Your task to perform on an android device: Search for flights from NYC to Buenos aires Image 0: 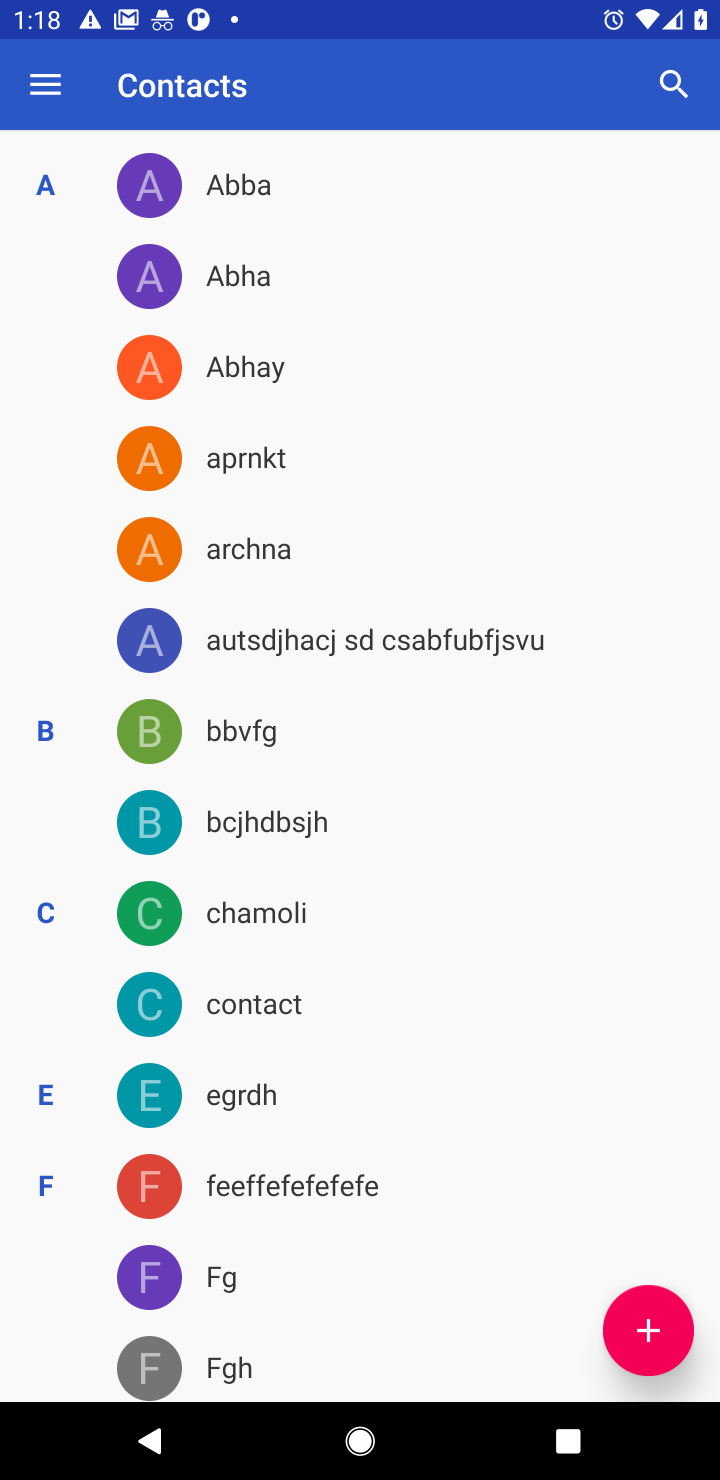
Step 0: press home button
Your task to perform on an android device: Search for flights from NYC to Buenos aires Image 1: 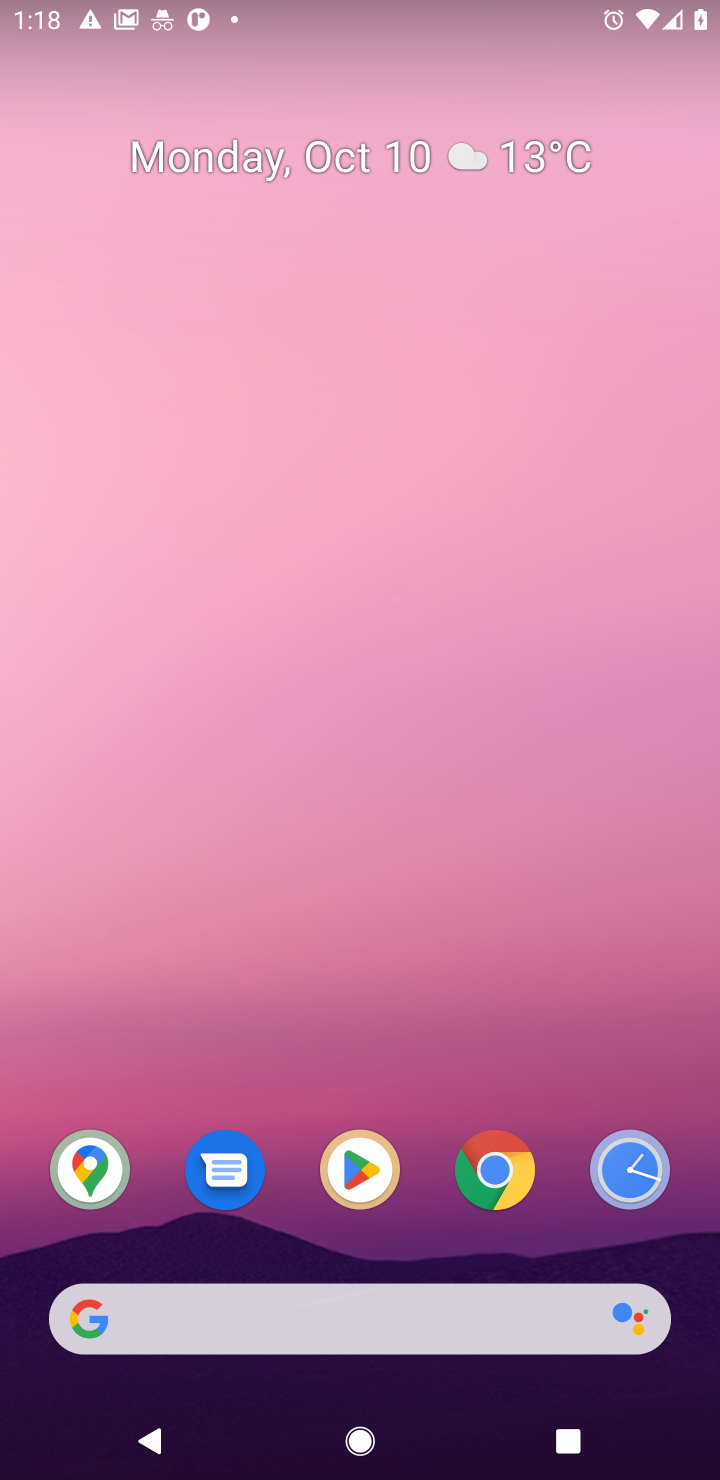
Step 1: click (493, 1184)
Your task to perform on an android device: Search for flights from NYC to Buenos aires Image 2: 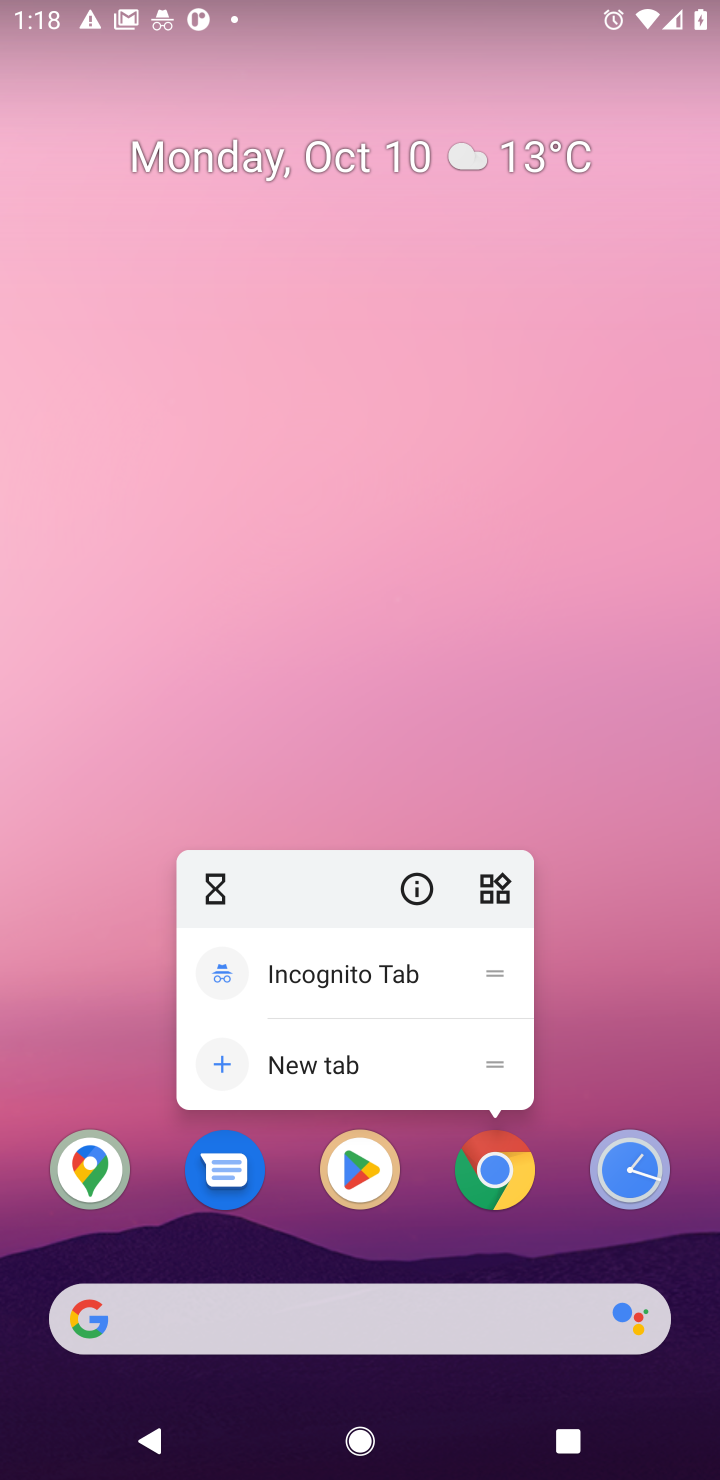
Step 2: click (493, 1184)
Your task to perform on an android device: Search for flights from NYC to Buenos aires Image 3: 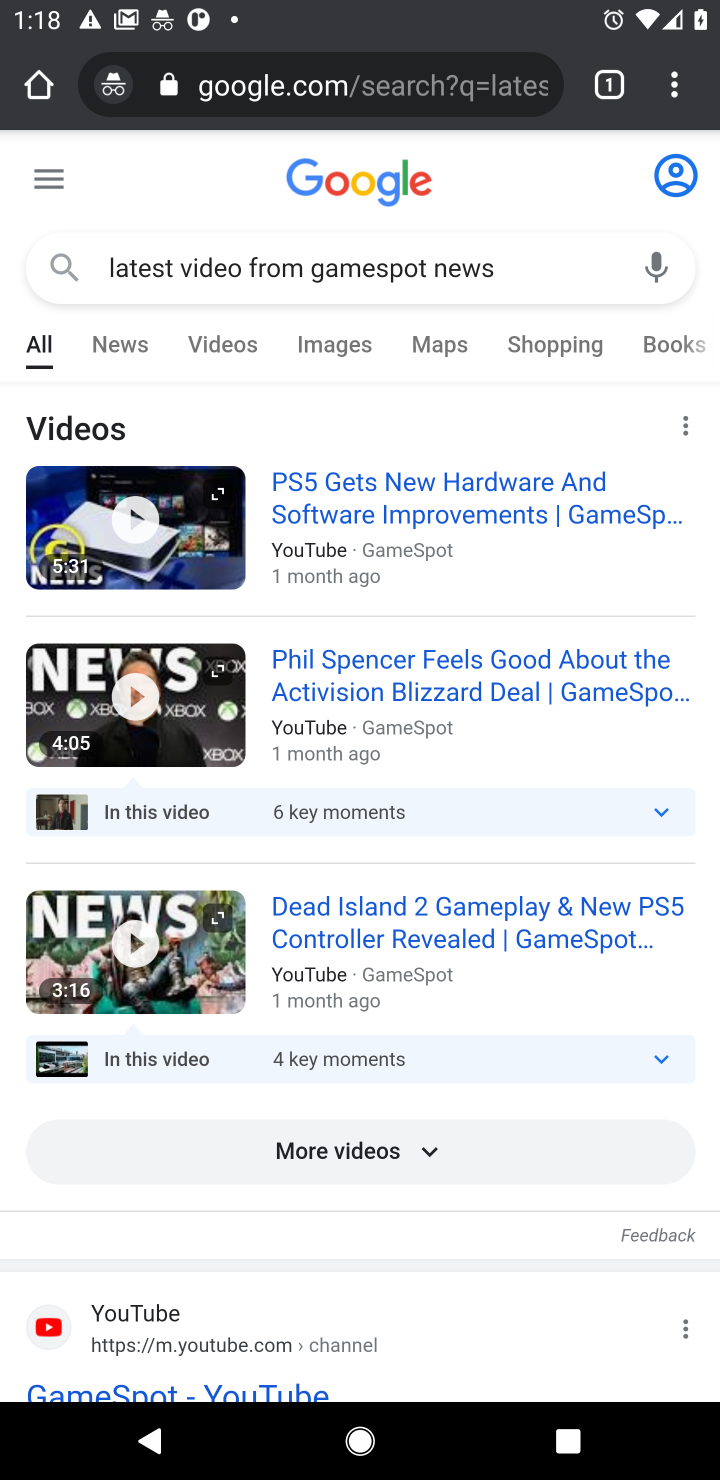
Step 3: click (305, 85)
Your task to perform on an android device: Search for flights from NYC to Buenos aires Image 4: 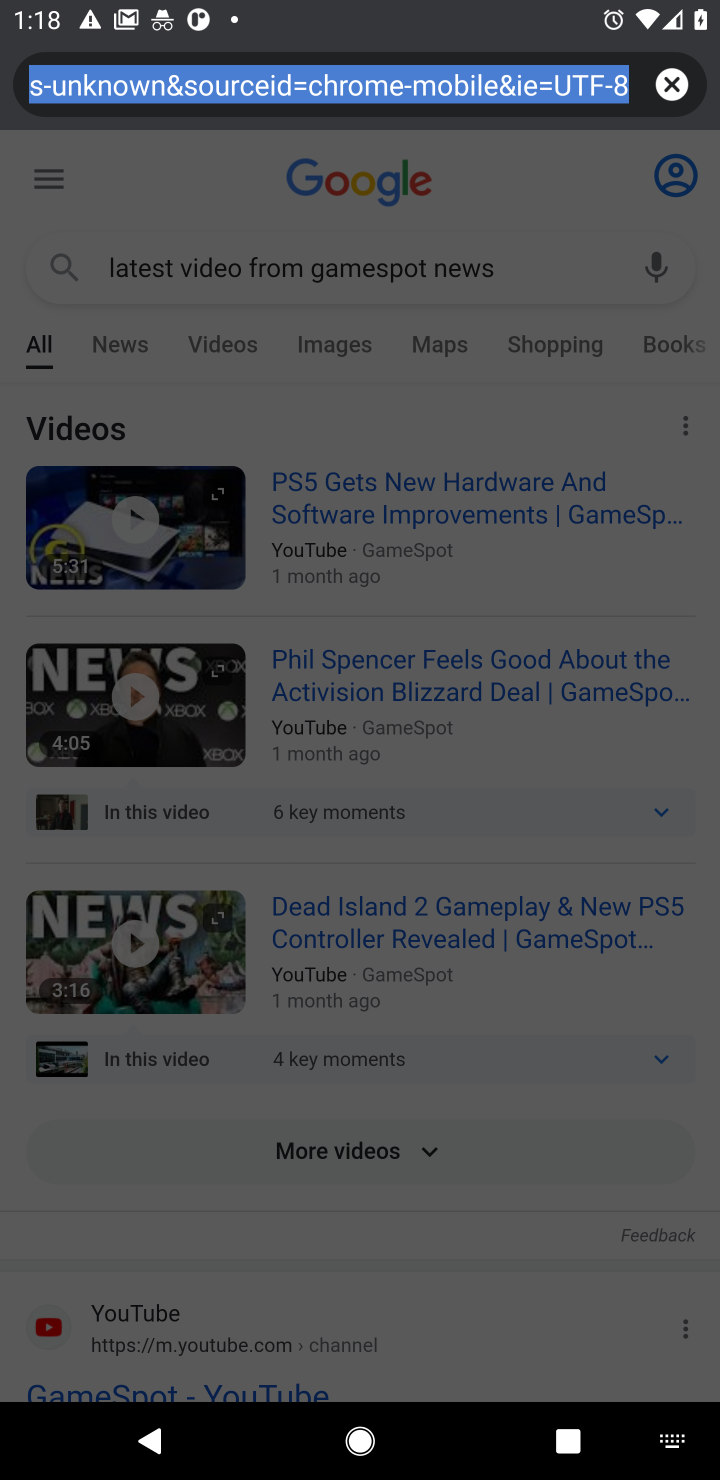
Step 4: click (679, 81)
Your task to perform on an android device: Search for flights from NYC to Buenos aires Image 5: 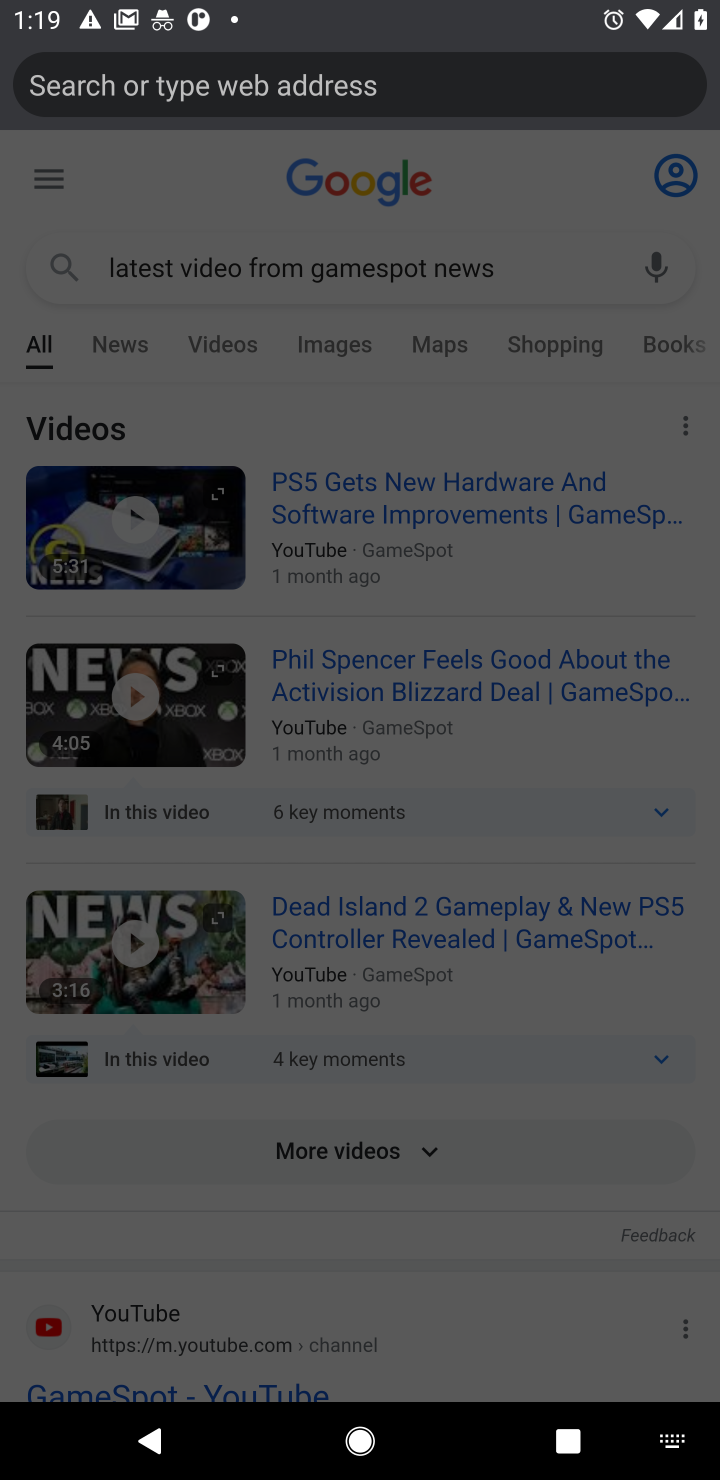
Step 5: type "flights from NYC to Buenos aires"
Your task to perform on an android device: Search for flights from NYC to Buenos aires Image 6: 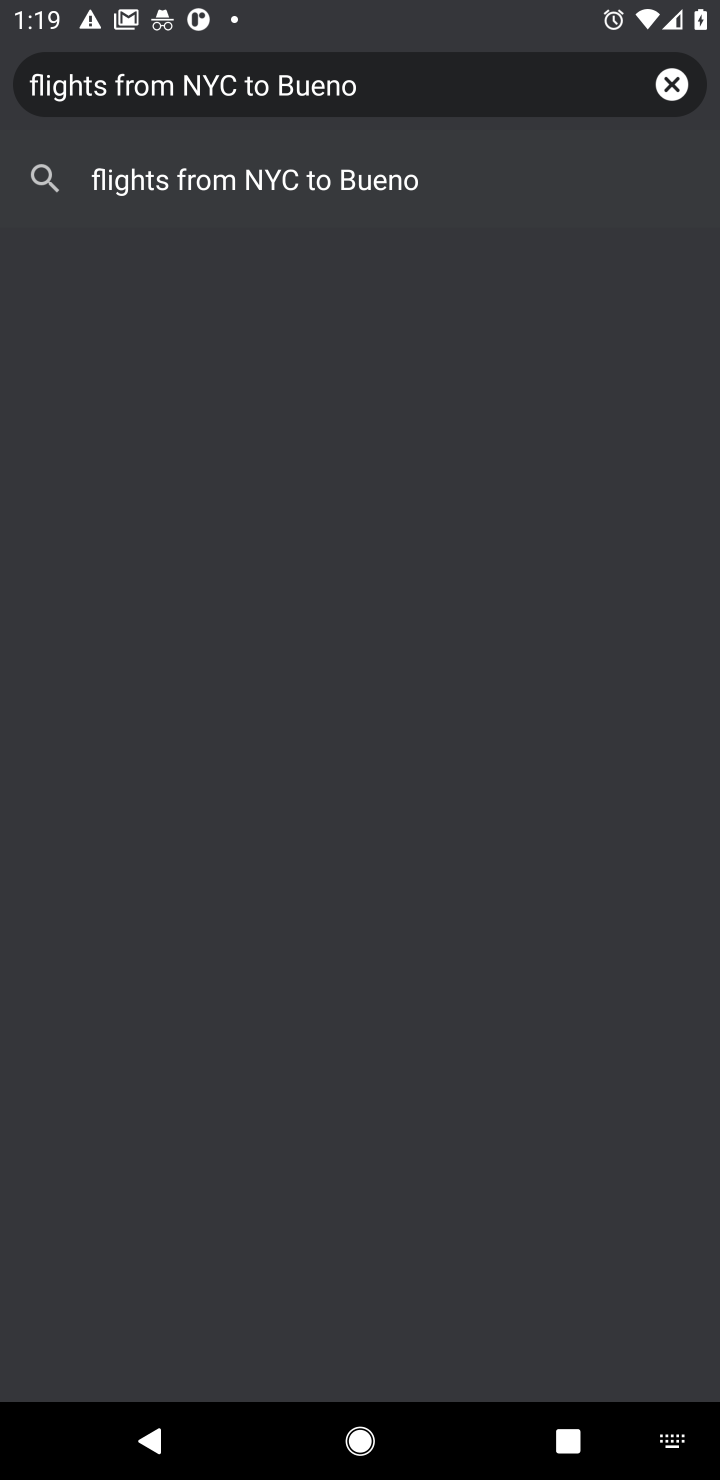
Step 6: type ""
Your task to perform on an android device: Search for flights from NYC to Buenos aires Image 7: 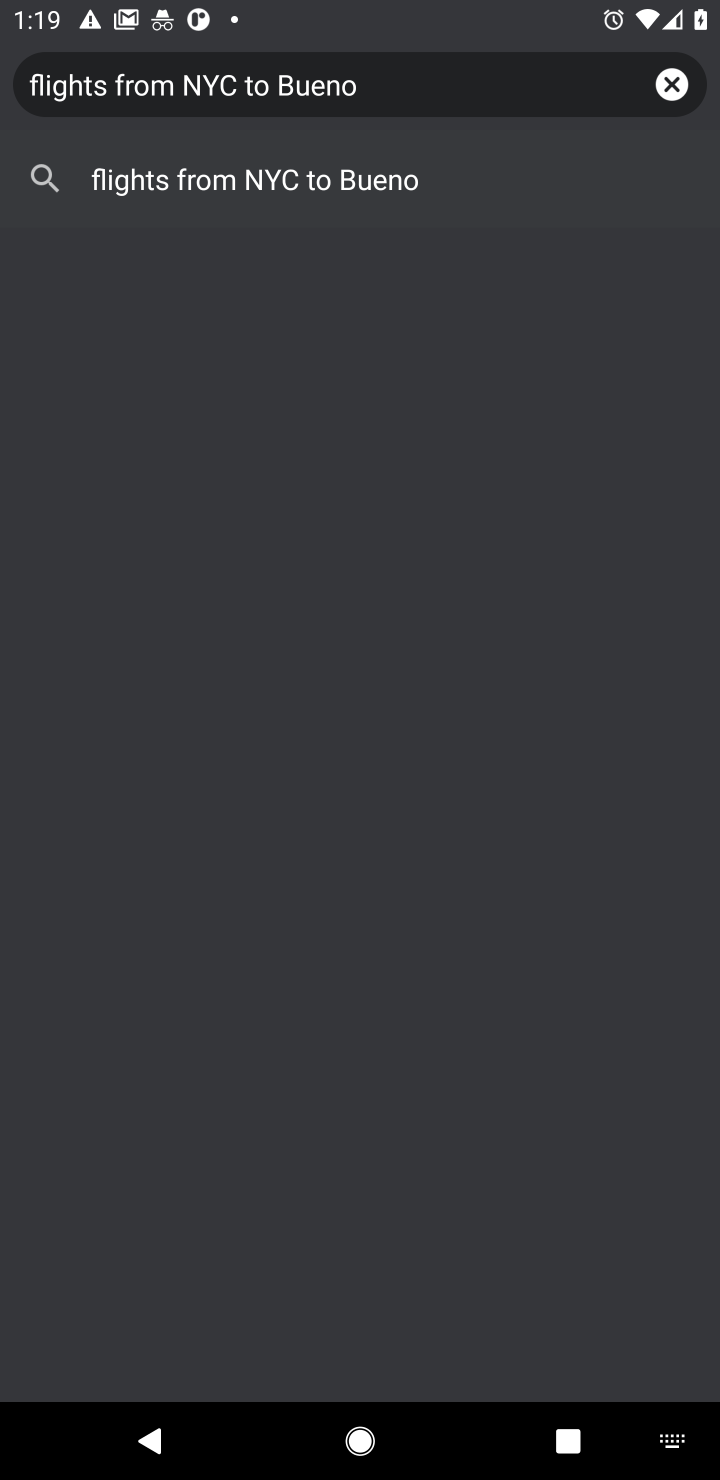
Step 7: click (249, 188)
Your task to perform on an android device: Search for flights from NYC to Buenos aires Image 8: 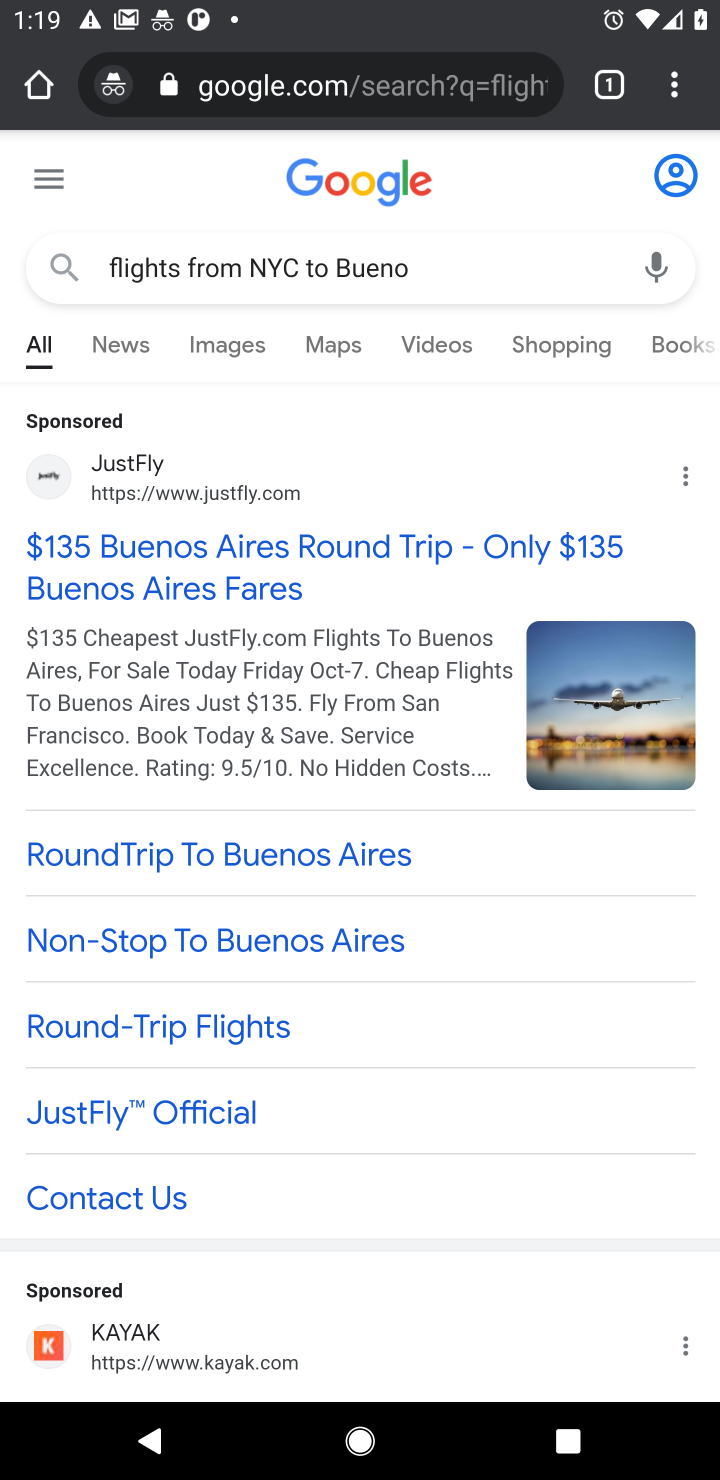
Step 8: click (204, 543)
Your task to perform on an android device: Search for flights from NYC to Buenos aires Image 9: 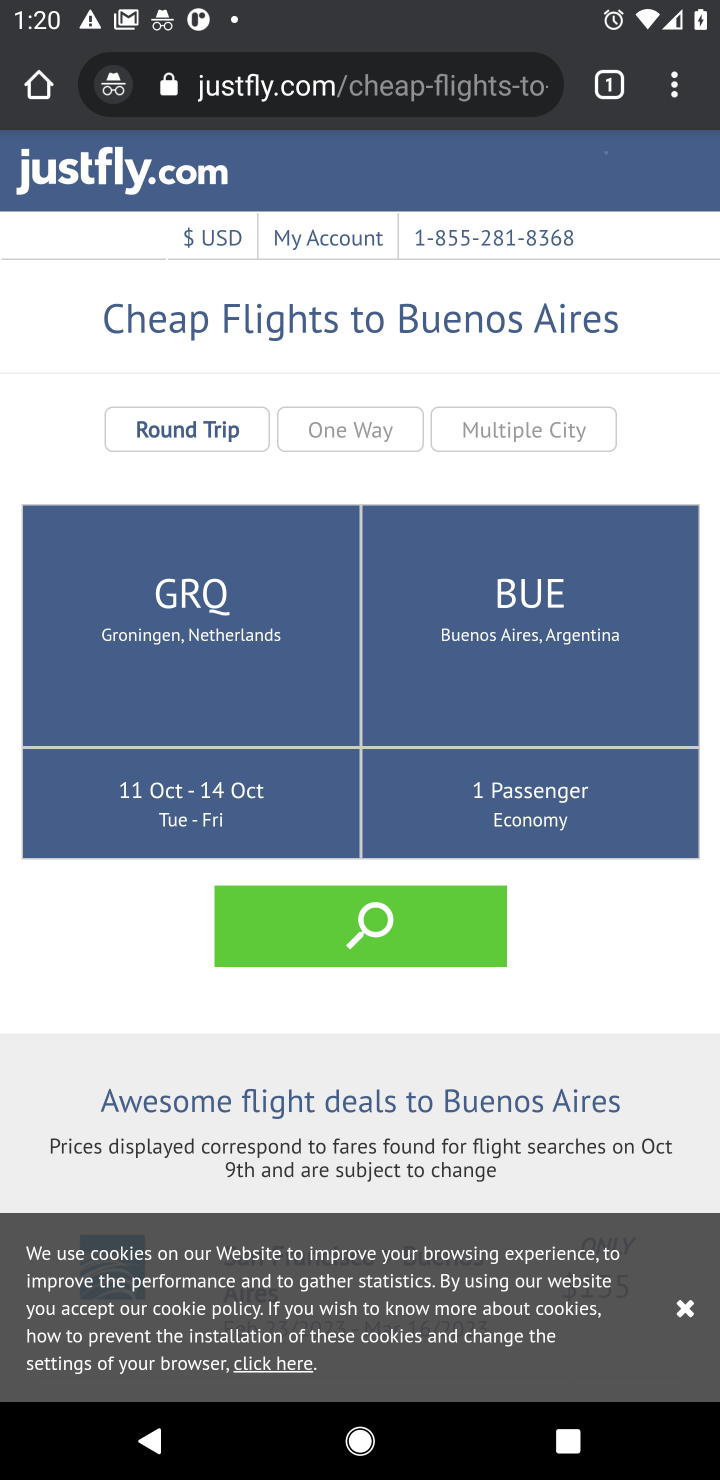
Step 9: task complete